Your task to perform on an android device: change the clock style Image 0: 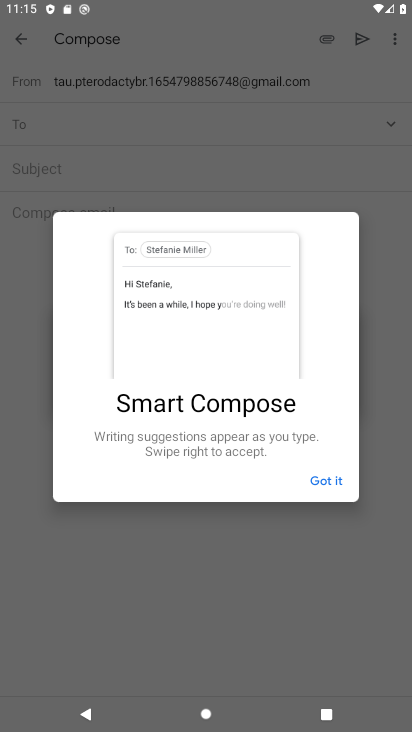
Step 0: press home button
Your task to perform on an android device: change the clock style Image 1: 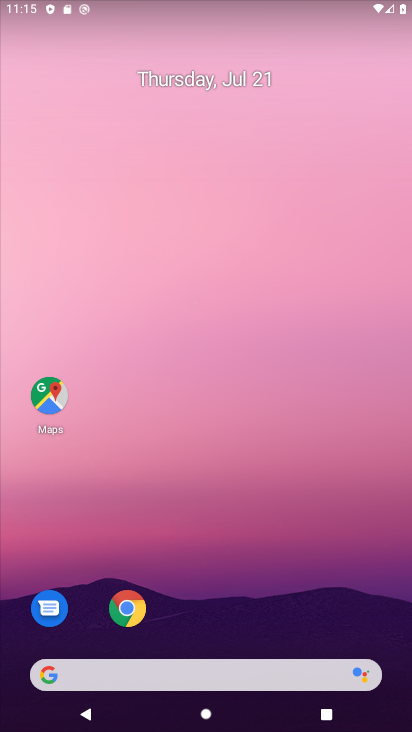
Step 1: drag from (189, 564) to (232, 145)
Your task to perform on an android device: change the clock style Image 2: 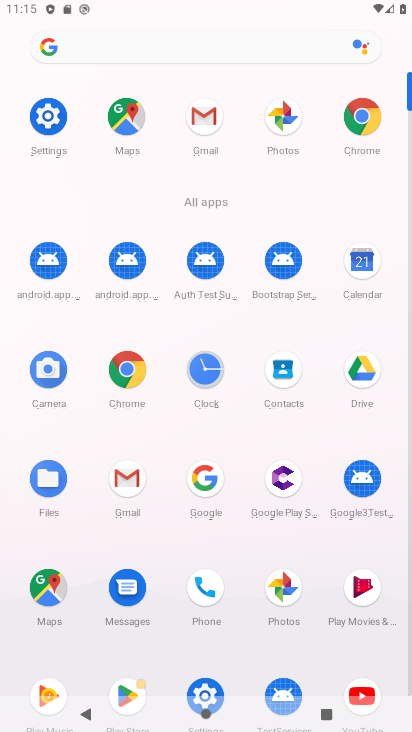
Step 2: click (199, 385)
Your task to perform on an android device: change the clock style Image 3: 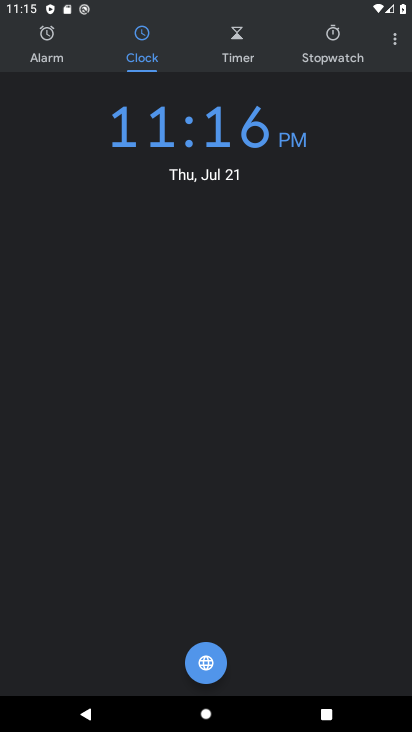
Step 3: click (391, 27)
Your task to perform on an android device: change the clock style Image 4: 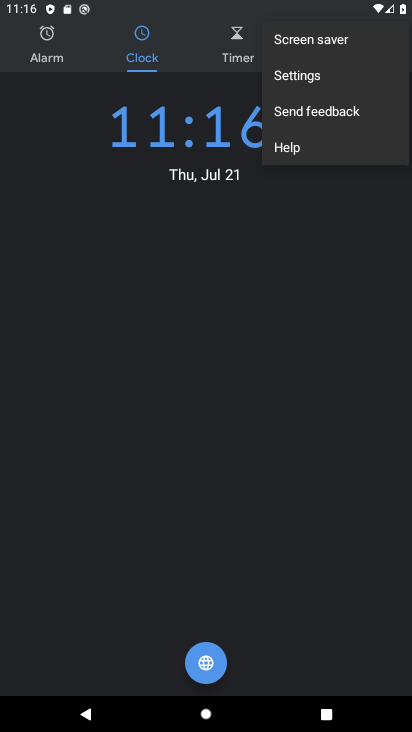
Step 4: click (303, 82)
Your task to perform on an android device: change the clock style Image 5: 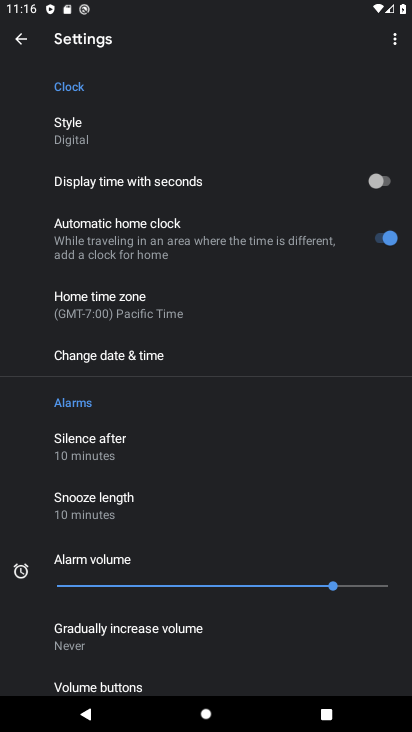
Step 5: click (84, 139)
Your task to perform on an android device: change the clock style Image 6: 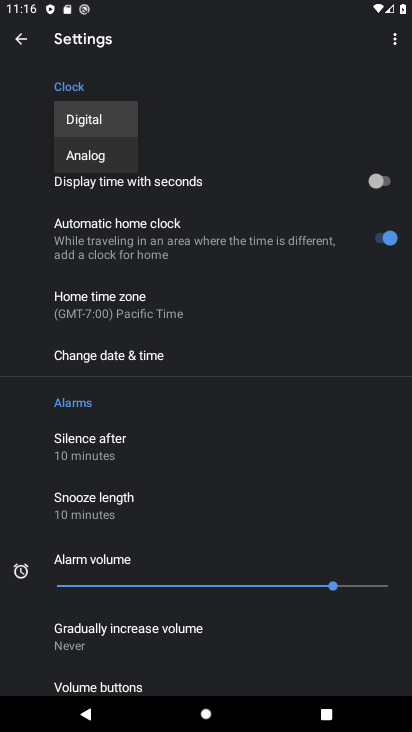
Step 6: click (96, 156)
Your task to perform on an android device: change the clock style Image 7: 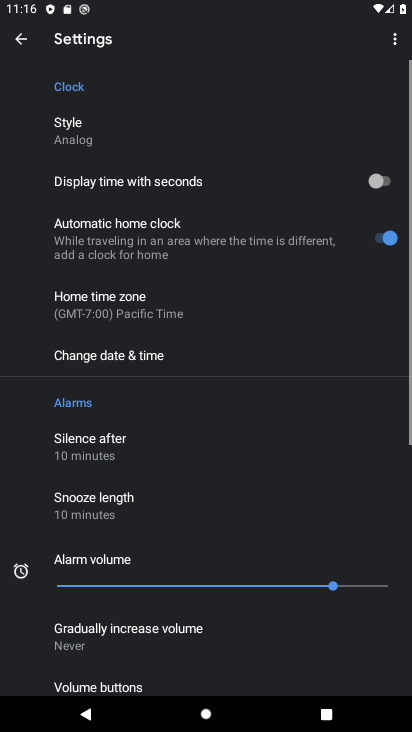
Step 7: task complete